Your task to perform on an android device: Go to Maps Image 0: 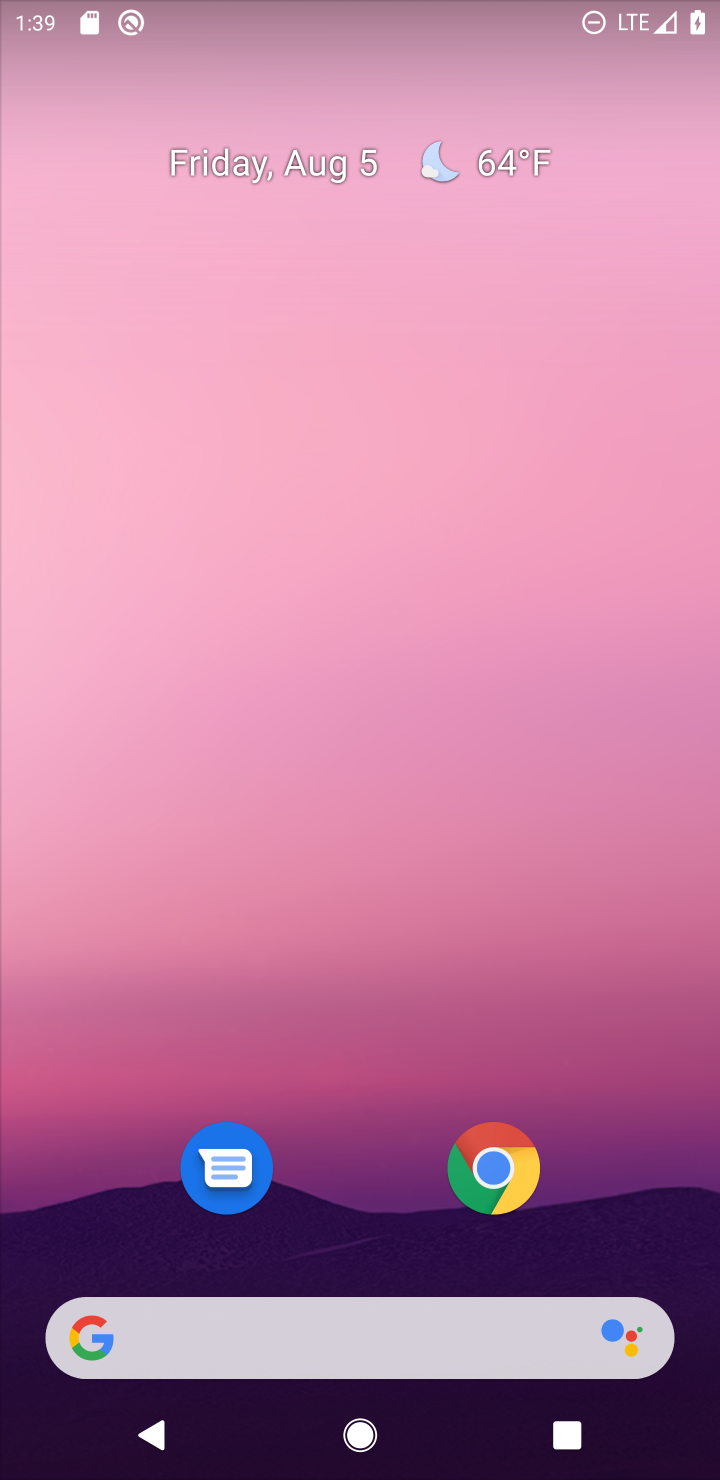
Step 0: drag from (667, 1253) to (296, 0)
Your task to perform on an android device: Go to Maps Image 1: 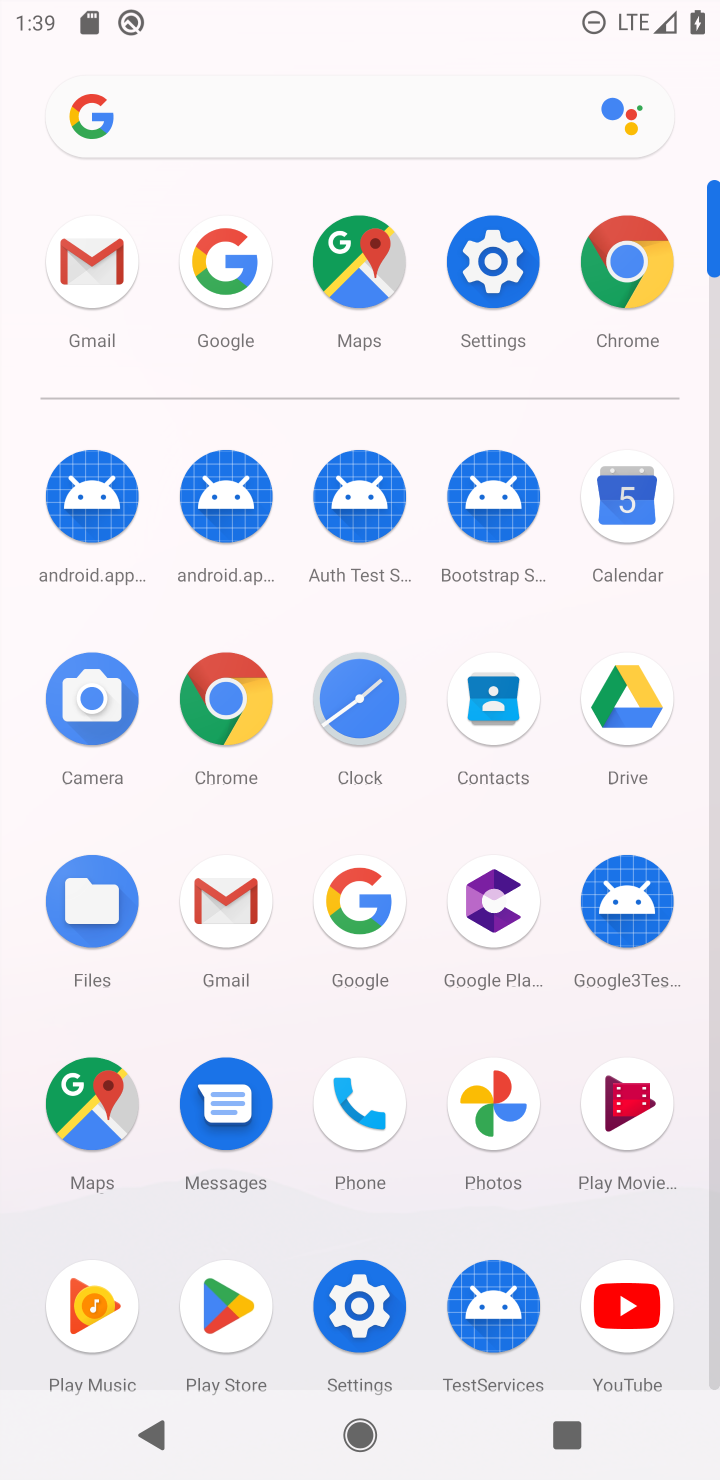
Step 1: click (92, 1088)
Your task to perform on an android device: Go to Maps Image 2: 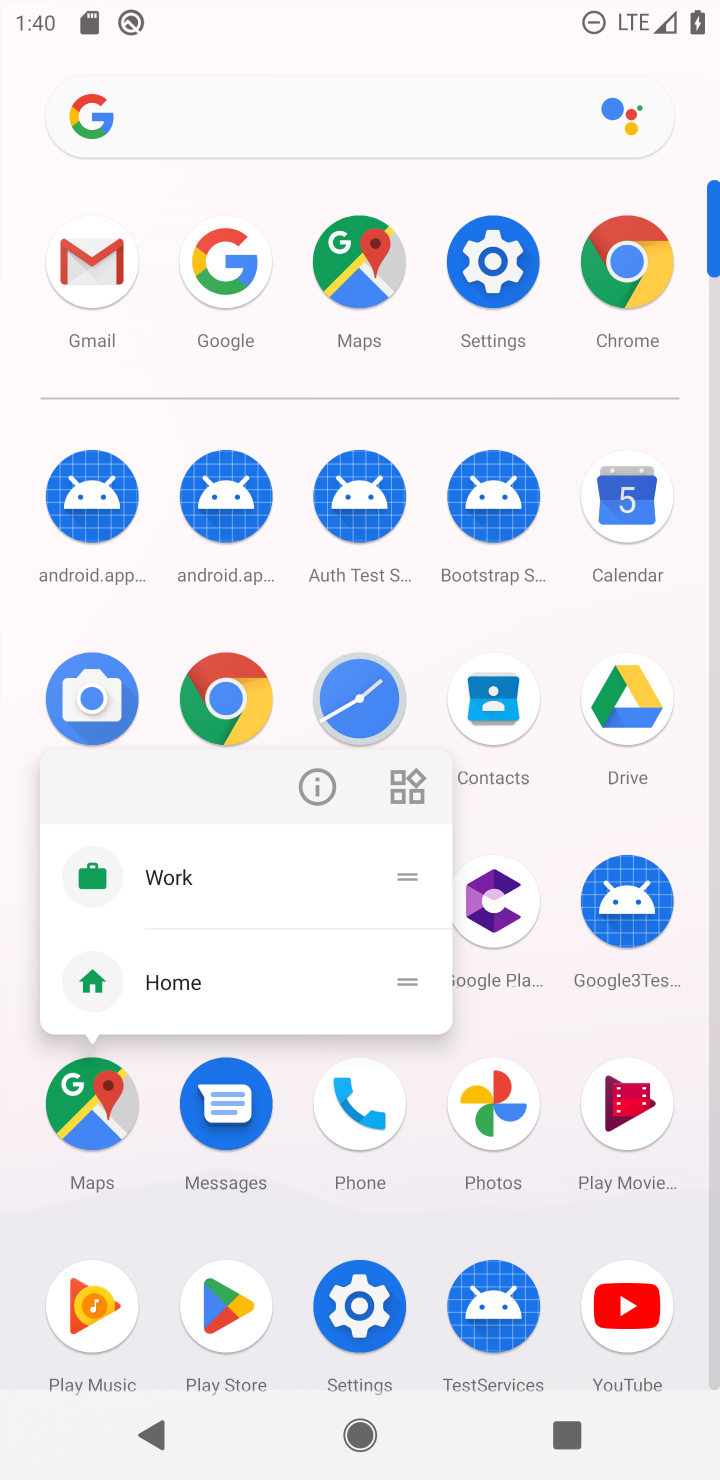
Step 2: click (77, 1100)
Your task to perform on an android device: Go to Maps Image 3: 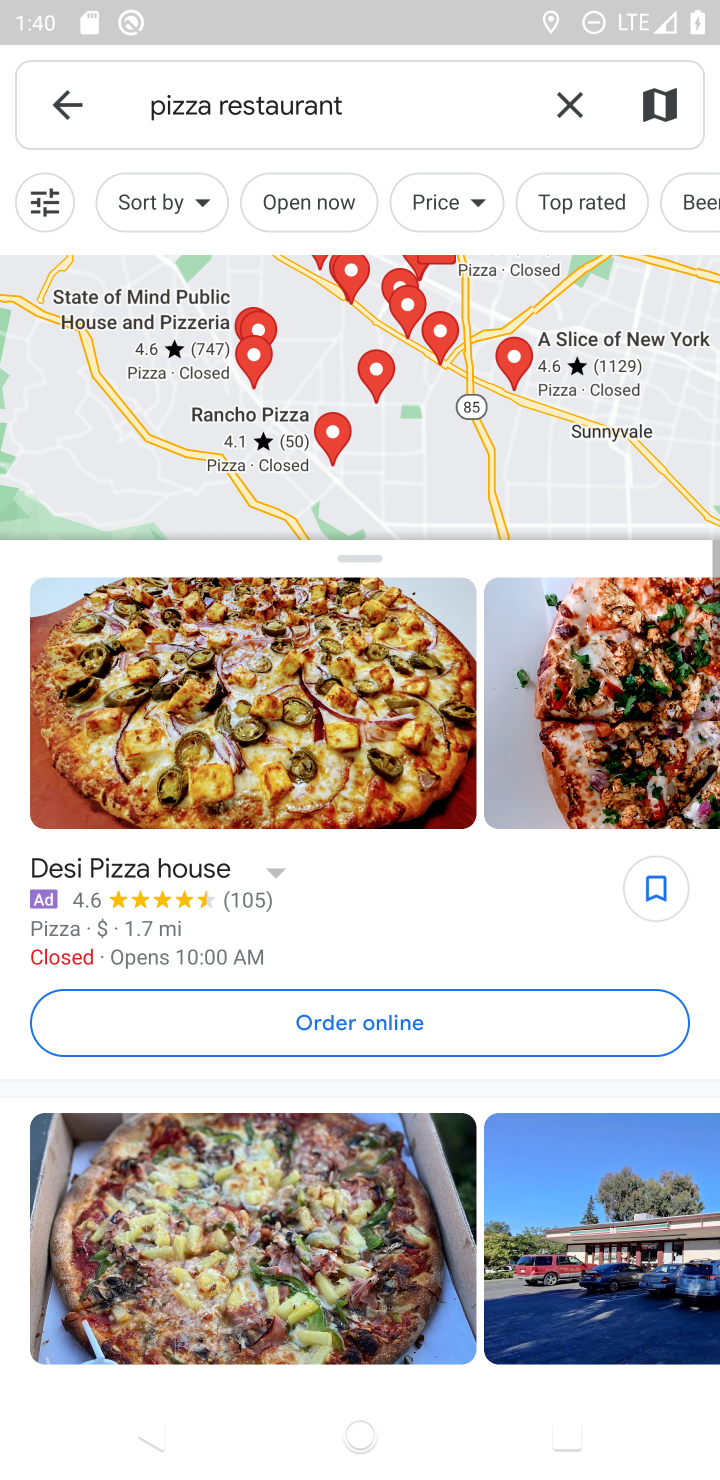
Step 3: task complete